Your task to perform on an android device: check battery use Image 0: 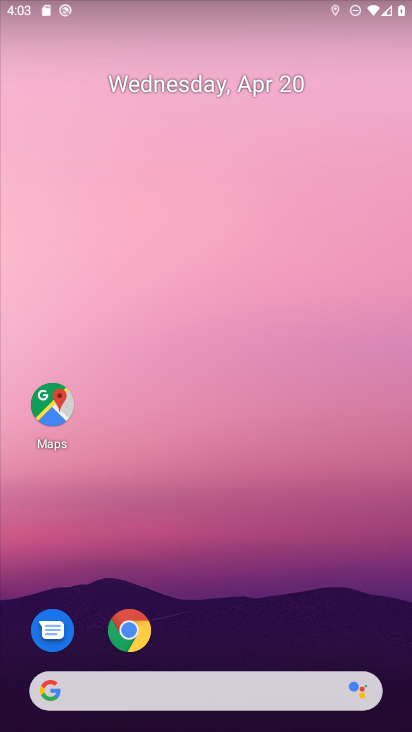
Step 0: drag from (288, 479) to (274, 46)
Your task to perform on an android device: check battery use Image 1: 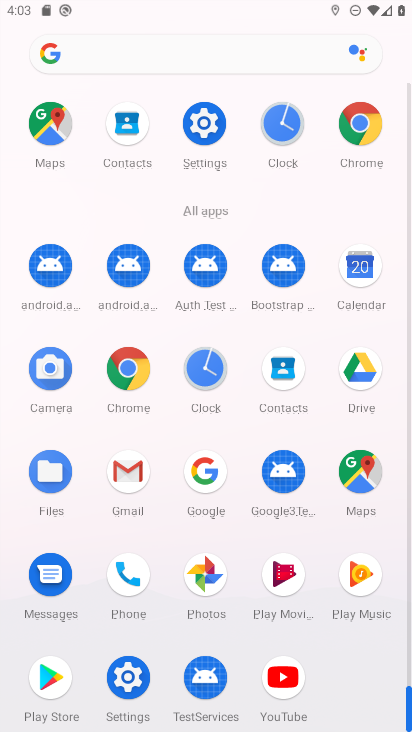
Step 1: click (120, 671)
Your task to perform on an android device: check battery use Image 2: 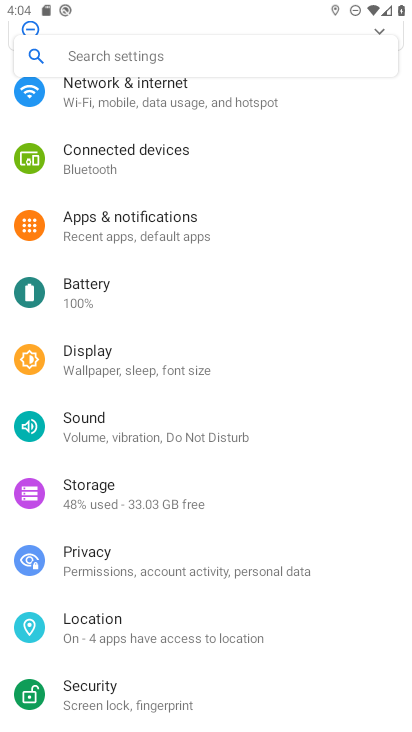
Step 2: click (122, 302)
Your task to perform on an android device: check battery use Image 3: 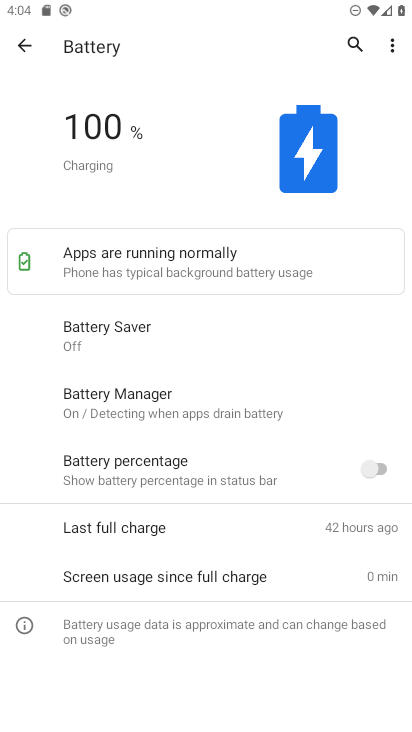
Step 3: task complete